Your task to perform on an android device: change the clock style Image 0: 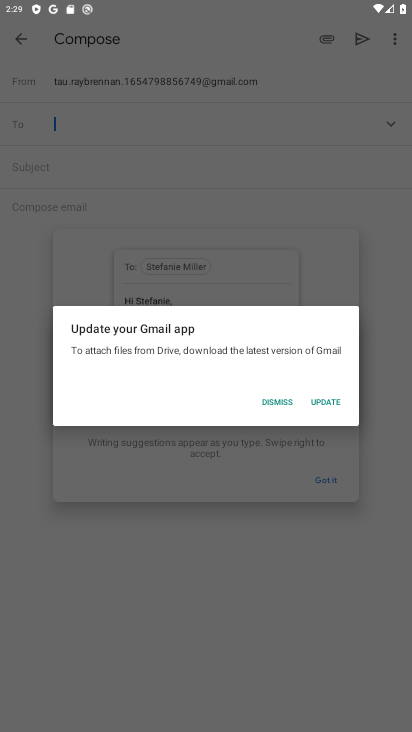
Step 0: press home button
Your task to perform on an android device: change the clock style Image 1: 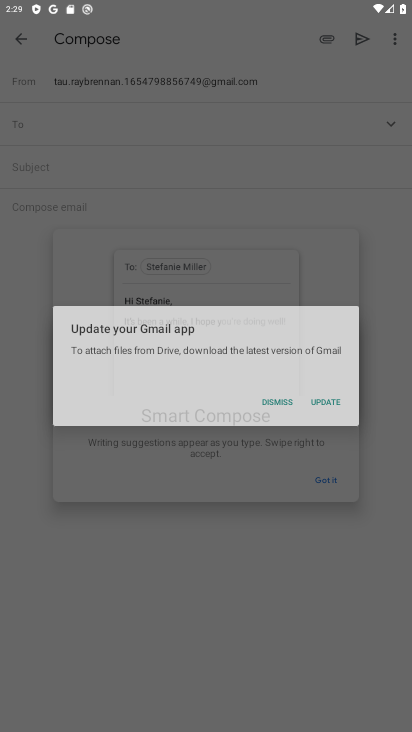
Step 1: press home button
Your task to perform on an android device: change the clock style Image 2: 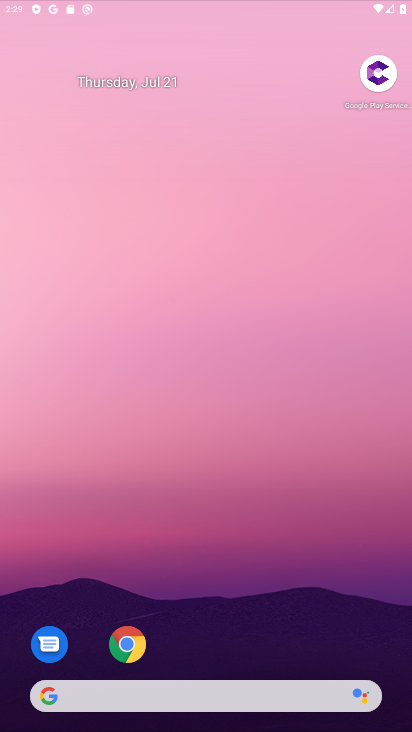
Step 2: press home button
Your task to perform on an android device: change the clock style Image 3: 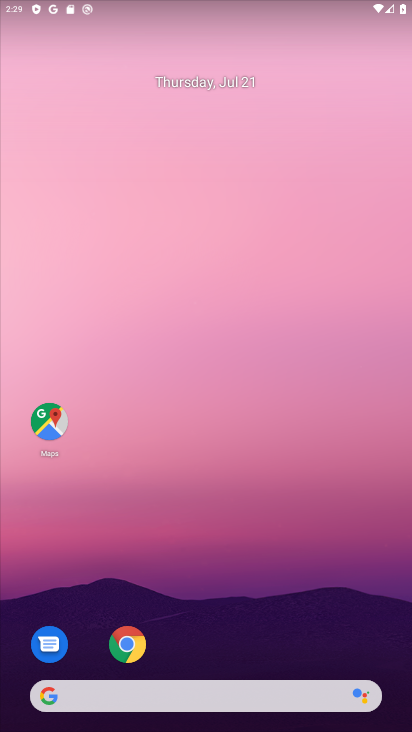
Step 3: drag from (318, 644) to (178, 133)
Your task to perform on an android device: change the clock style Image 4: 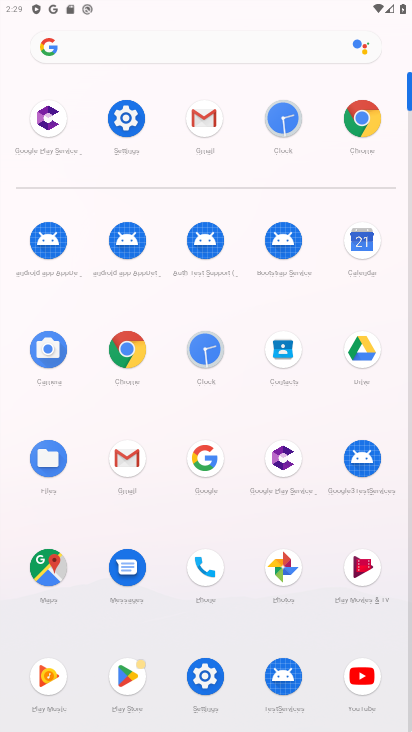
Step 4: click (196, 358)
Your task to perform on an android device: change the clock style Image 5: 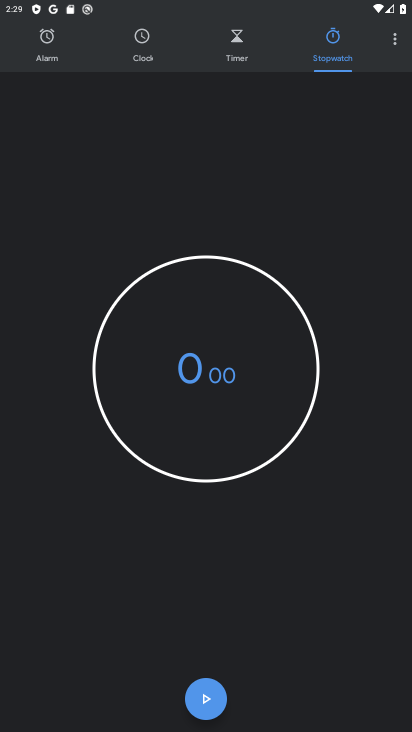
Step 5: click (403, 42)
Your task to perform on an android device: change the clock style Image 6: 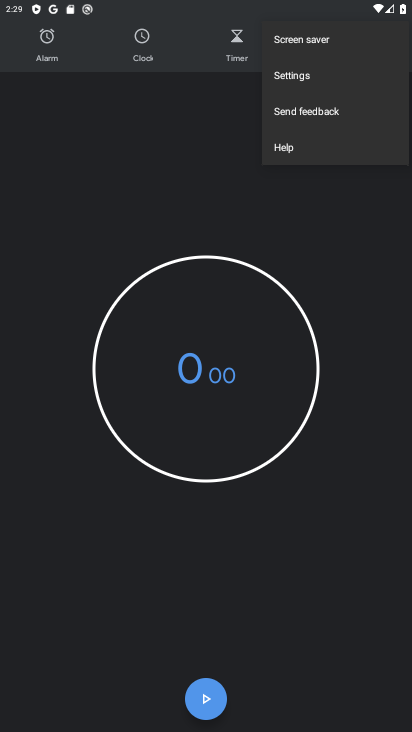
Step 6: click (337, 72)
Your task to perform on an android device: change the clock style Image 7: 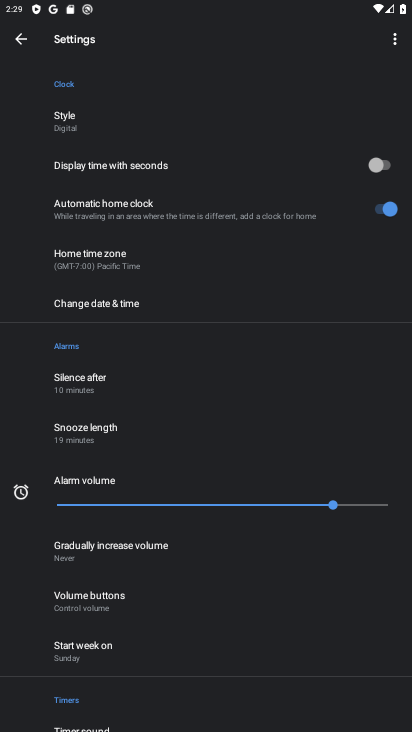
Step 7: click (120, 132)
Your task to perform on an android device: change the clock style Image 8: 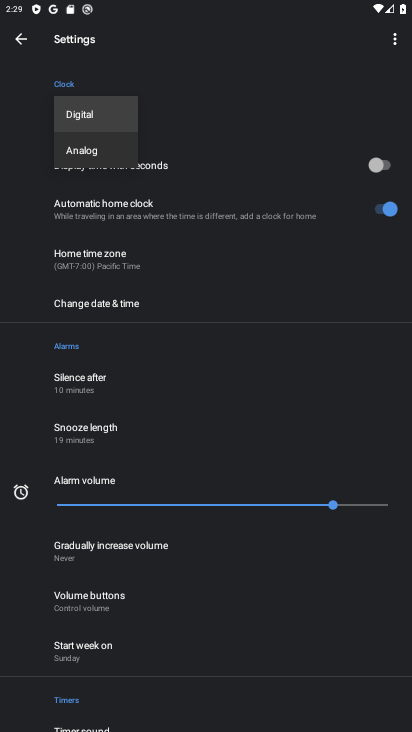
Step 8: click (119, 148)
Your task to perform on an android device: change the clock style Image 9: 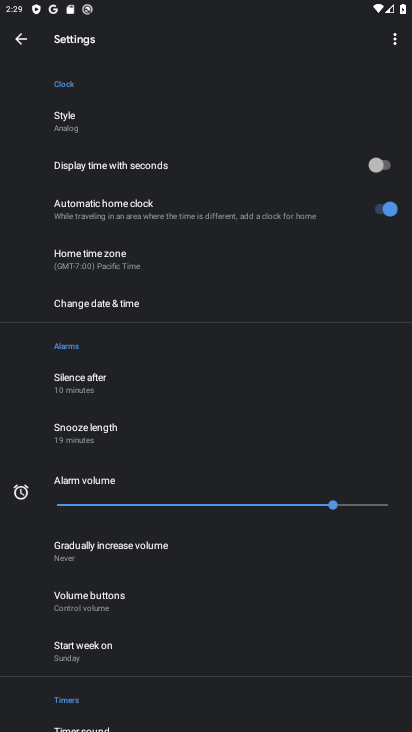
Step 9: task complete